Your task to perform on an android device: Go to network settings Image 0: 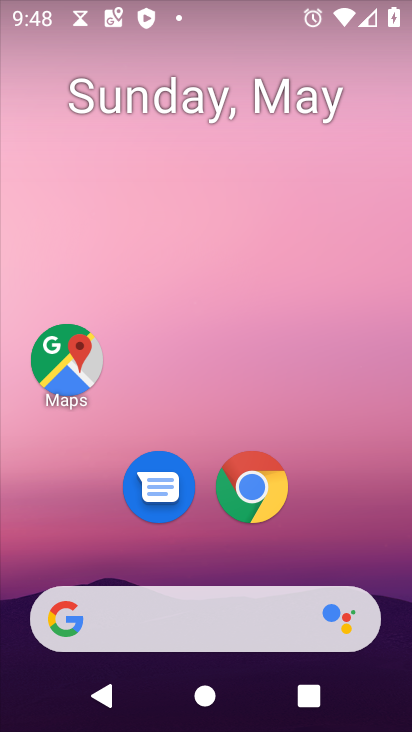
Step 0: drag from (339, 394) to (327, 22)
Your task to perform on an android device: Go to network settings Image 1: 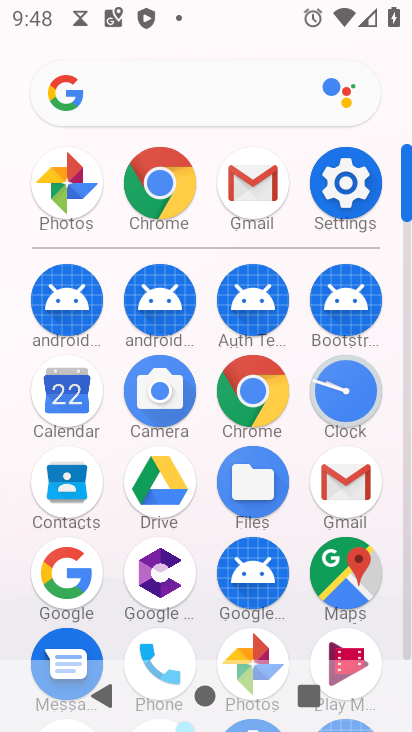
Step 1: click (362, 197)
Your task to perform on an android device: Go to network settings Image 2: 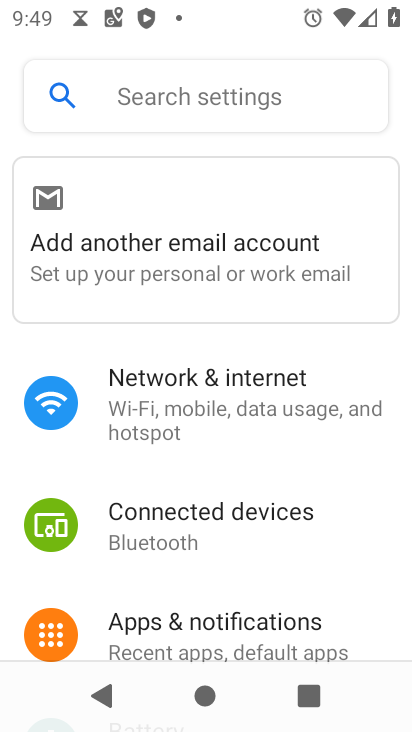
Step 2: click (170, 427)
Your task to perform on an android device: Go to network settings Image 3: 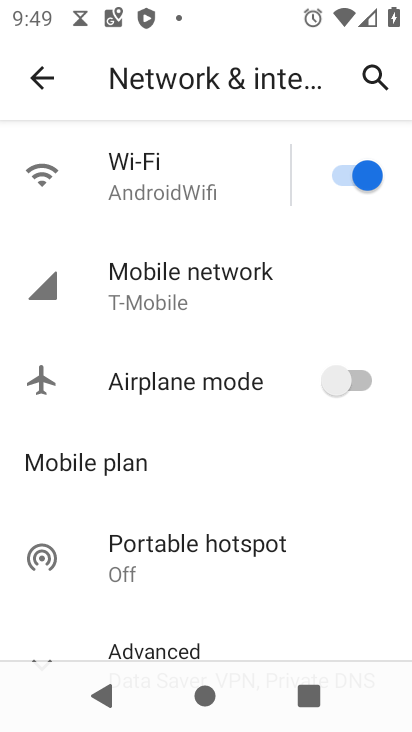
Step 3: task complete